Your task to perform on an android device: check data usage Image 0: 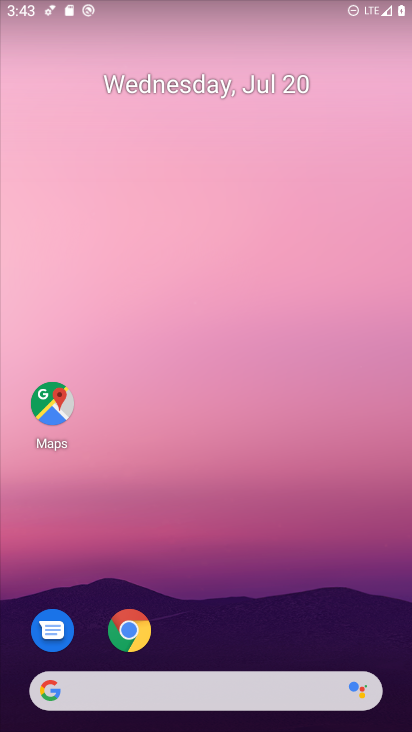
Step 0: drag from (230, 526) to (255, 76)
Your task to perform on an android device: check data usage Image 1: 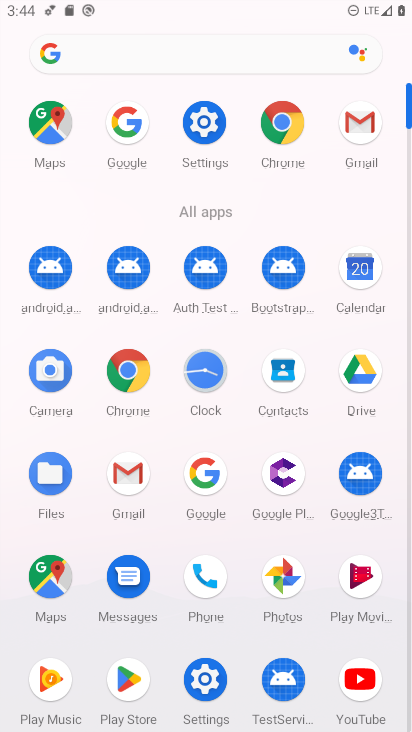
Step 1: click (205, 126)
Your task to perform on an android device: check data usage Image 2: 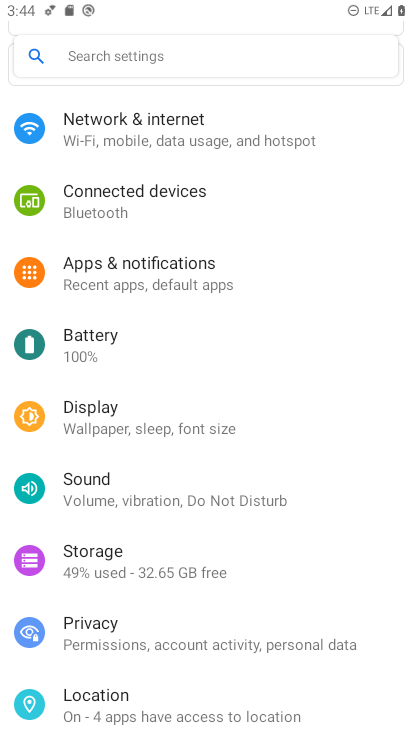
Step 2: click (160, 136)
Your task to perform on an android device: check data usage Image 3: 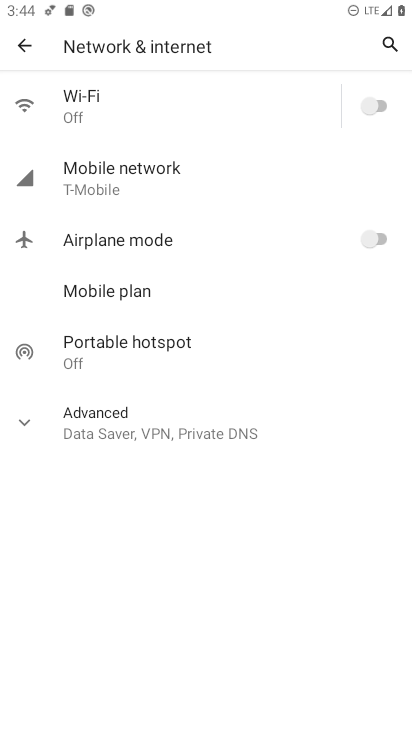
Step 3: click (47, 413)
Your task to perform on an android device: check data usage Image 4: 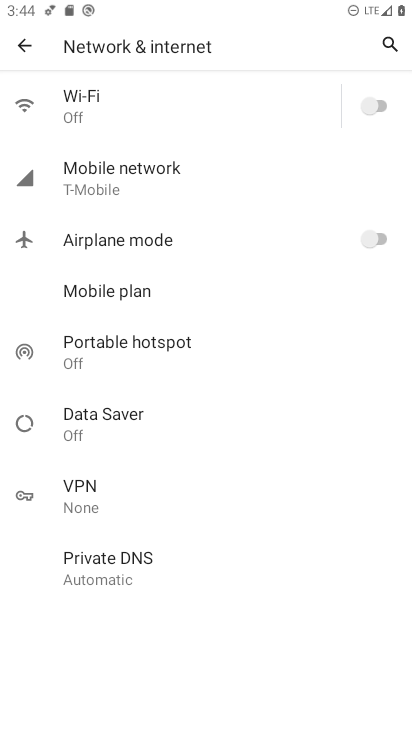
Step 4: click (104, 177)
Your task to perform on an android device: check data usage Image 5: 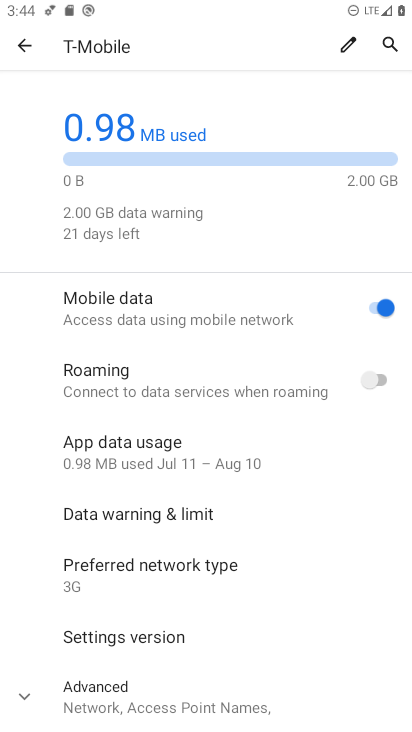
Step 5: click (181, 458)
Your task to perform on an android device: check data usage Image 6: 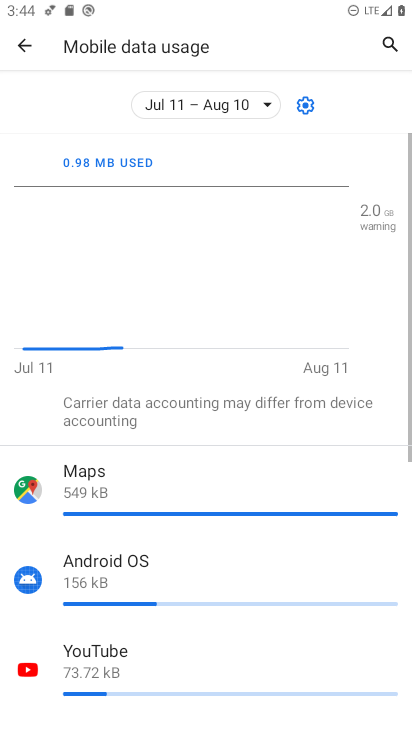
Step 6: task complete